Your task to perform on an android device: View the shopping cart on newegg. Image 0: 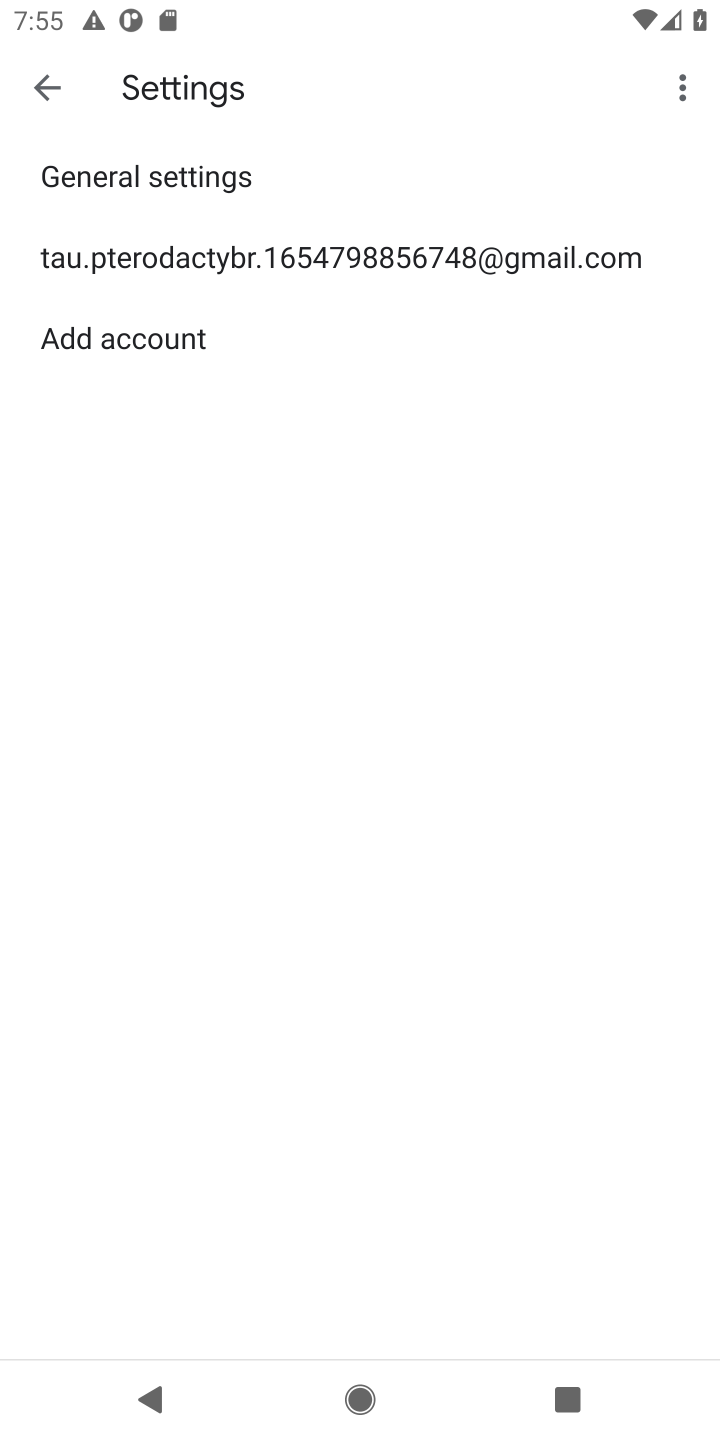
Step 0: press home button
Your task to perform on an android device: View the shopping cart on newegg. Image 1: 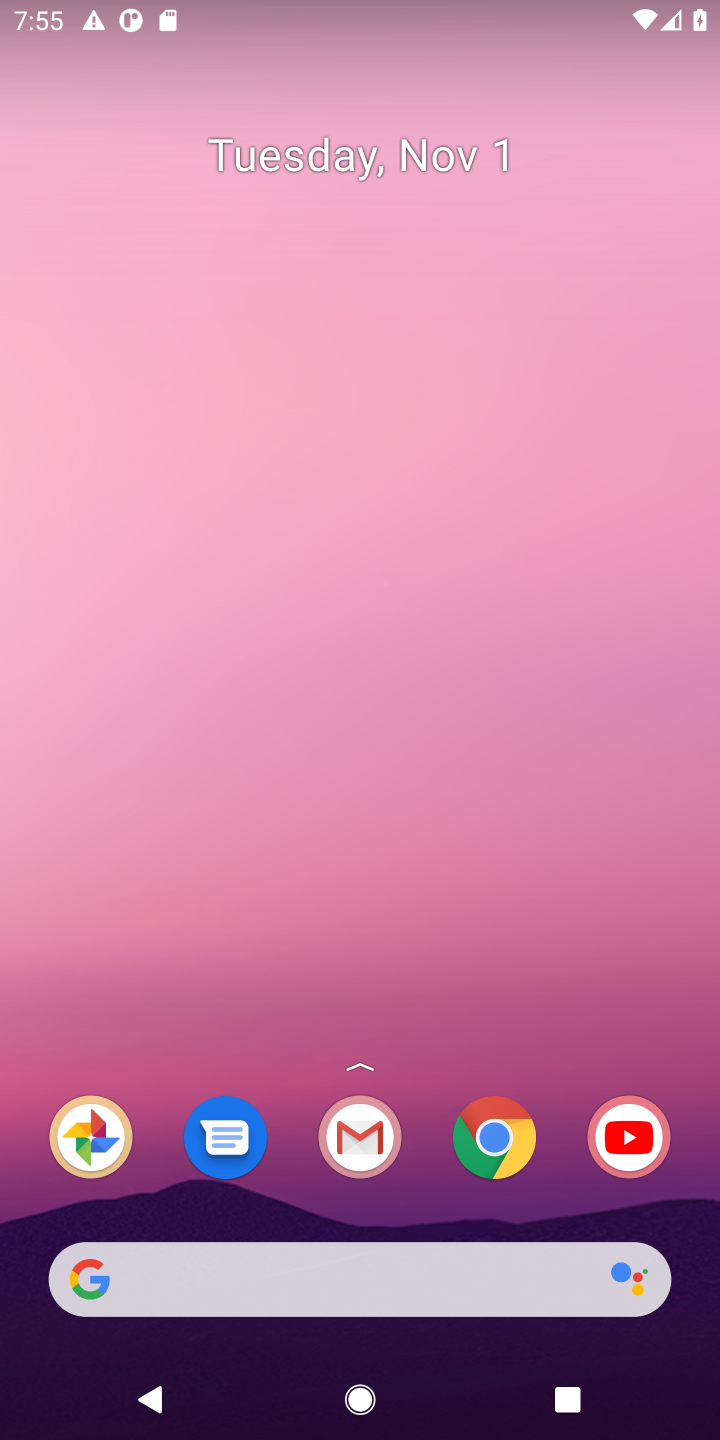
Step 1: click (489, 1157)
Your task to perform on an android device: View the shopping cart on newegg. Image 2: 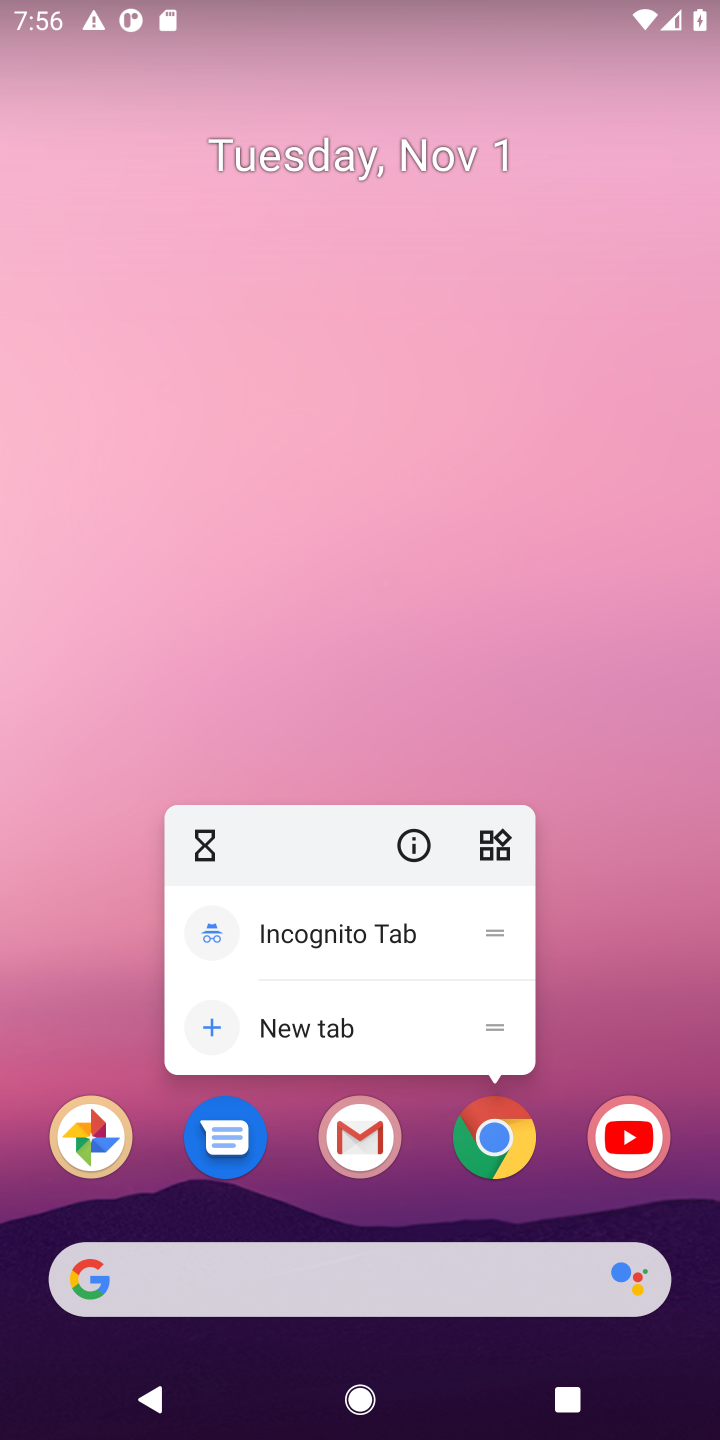
Step 2: click (489, 1157)
Your task to perform on an android device: View the shopping cart on newegg. Image 3: 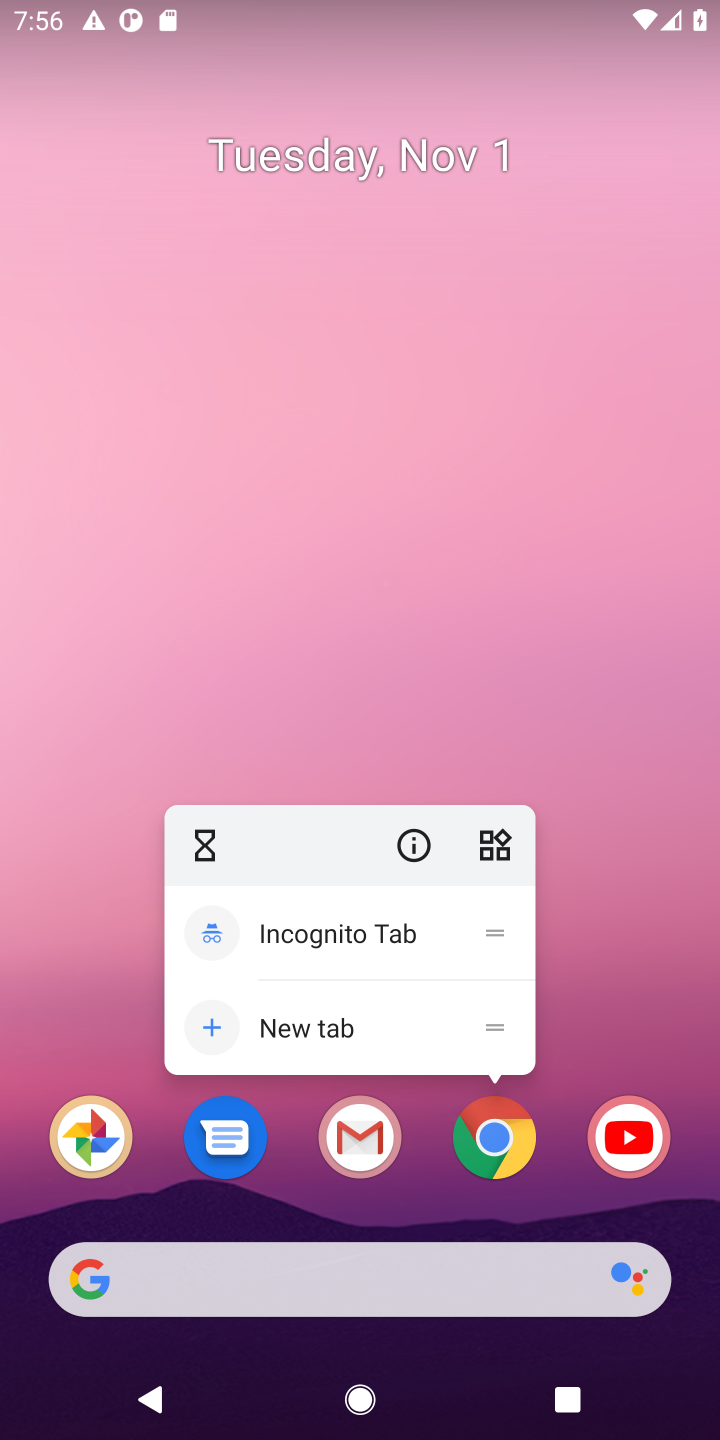
Step 3: click (489, 1157)
Your task to perform on an android device: View the shopping cart on newegg. Image 4: 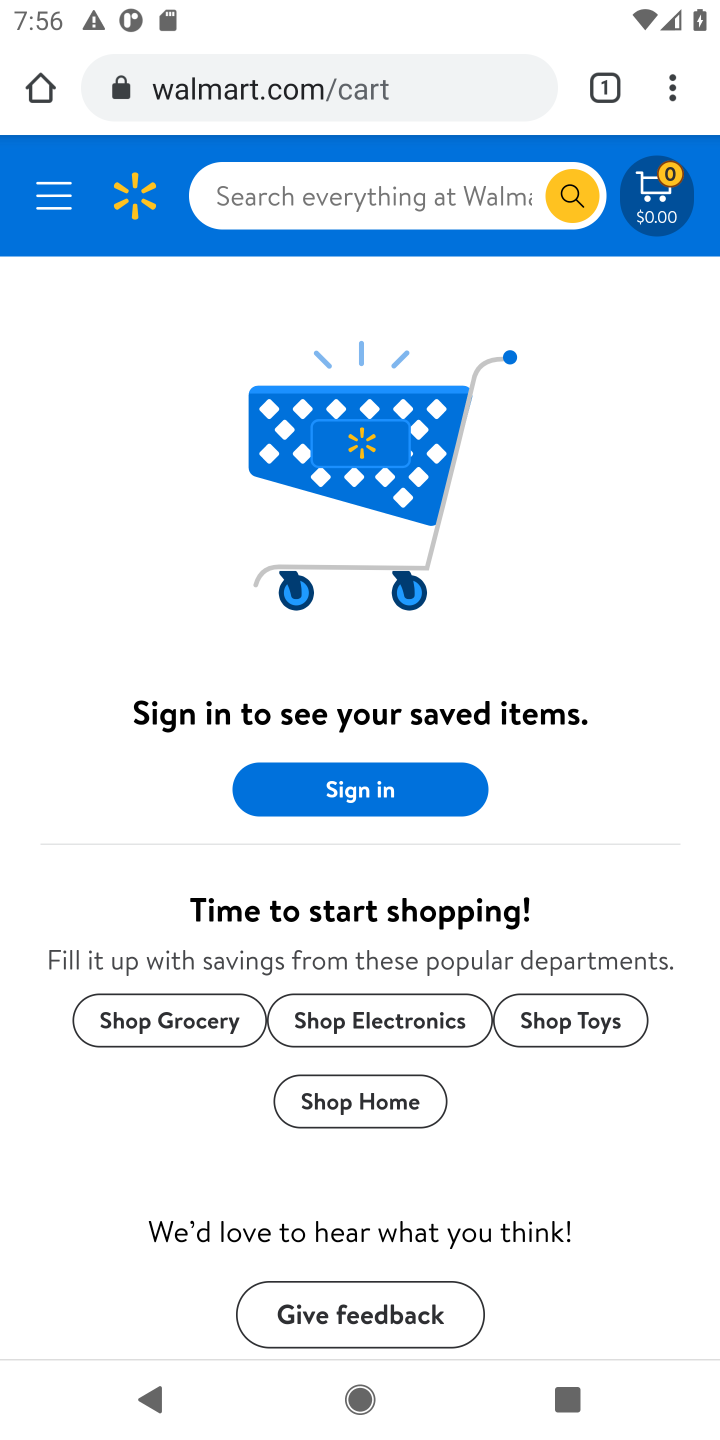
Step 4: click (365, 89)
Your task to perform on an android device: View the shopping cart on newegg. Image 5: 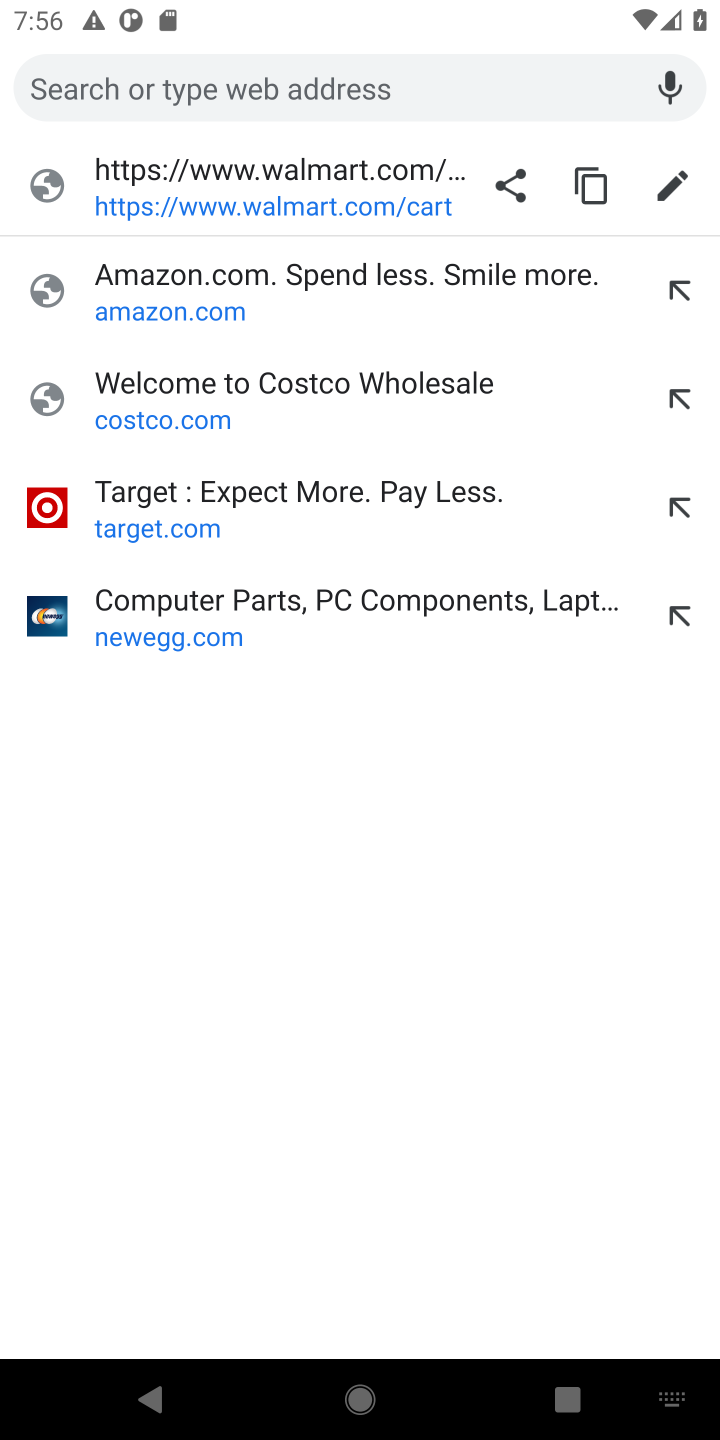
Step 5: type "newegg"
Your task to perform on an android device: View the shopping cart on newegg. Image 6: 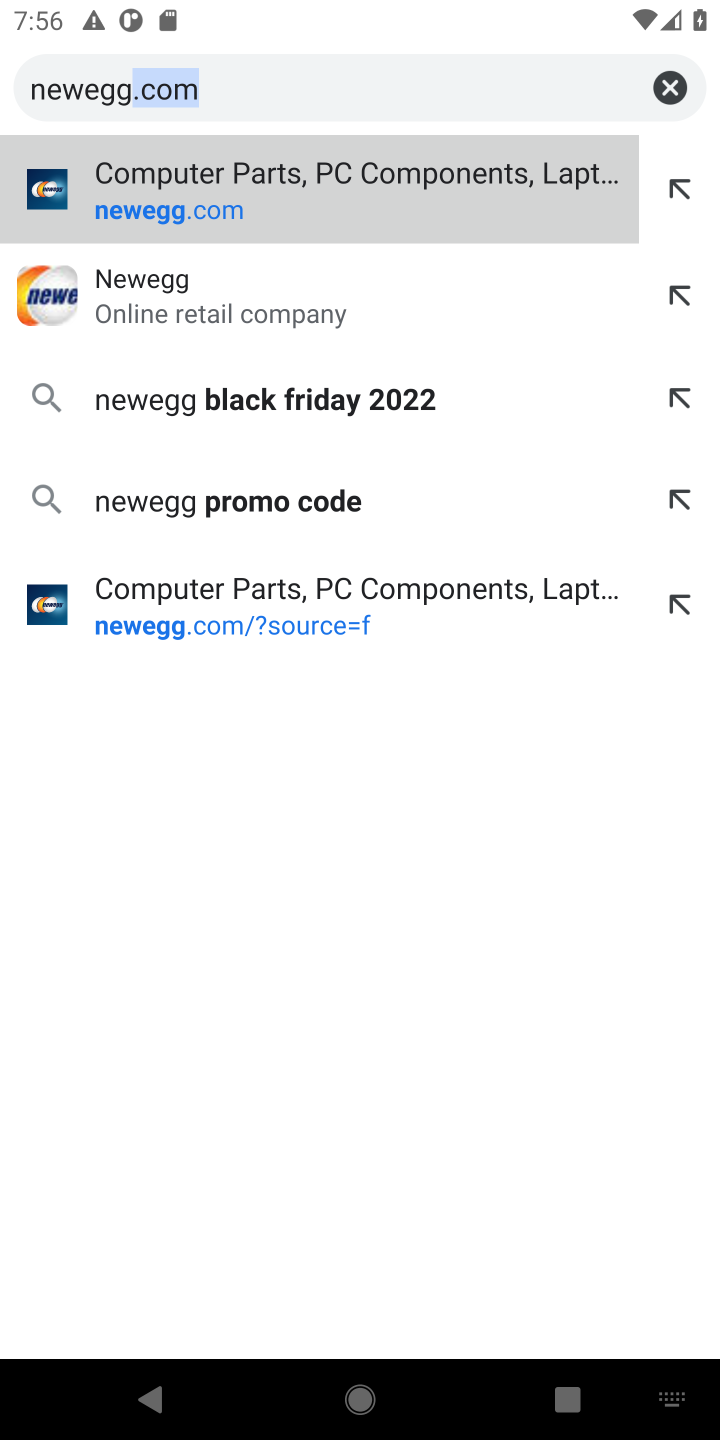
Step 6: click (212, 195)
Your task to perform on an android device: View the shopping cart on newegg. Image 7: 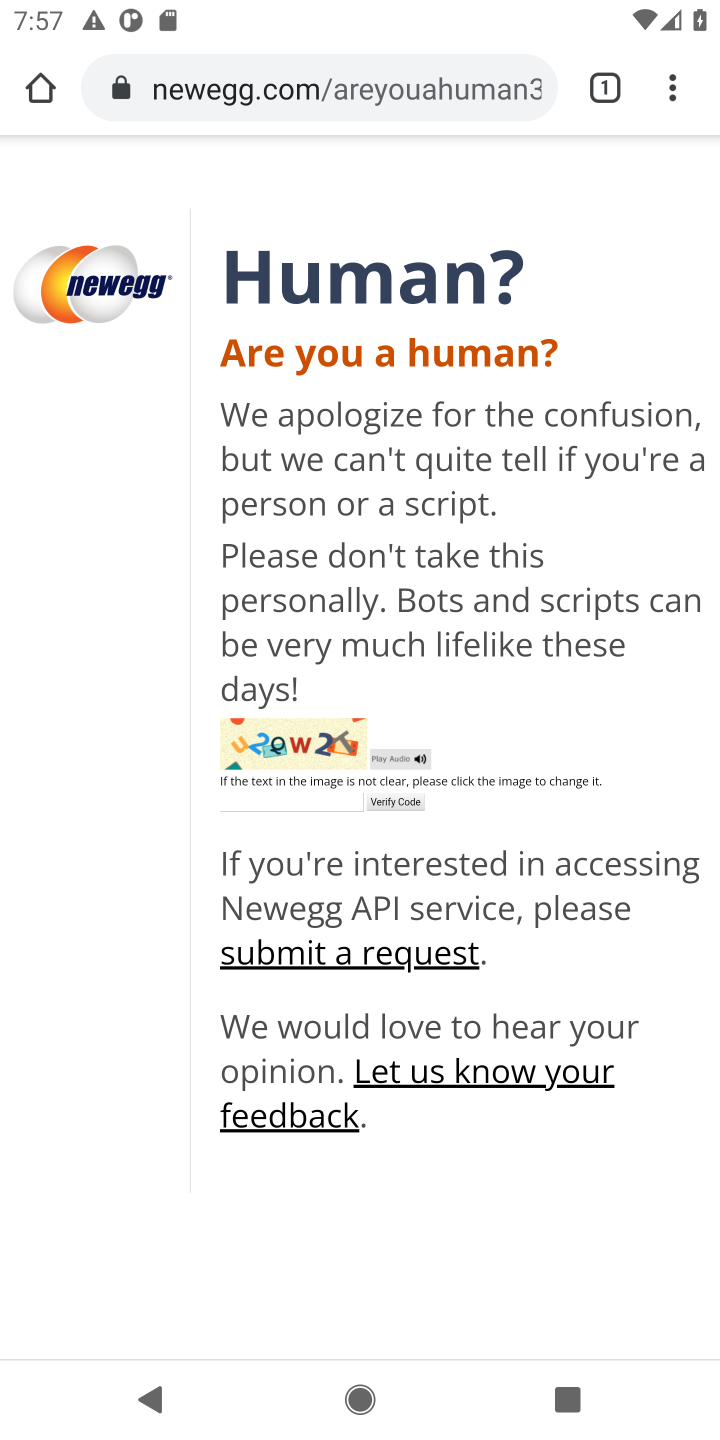
Step 7: click (391, 798)
Your task to perform on an android device: View the shopping cart on newegg. Image 8: 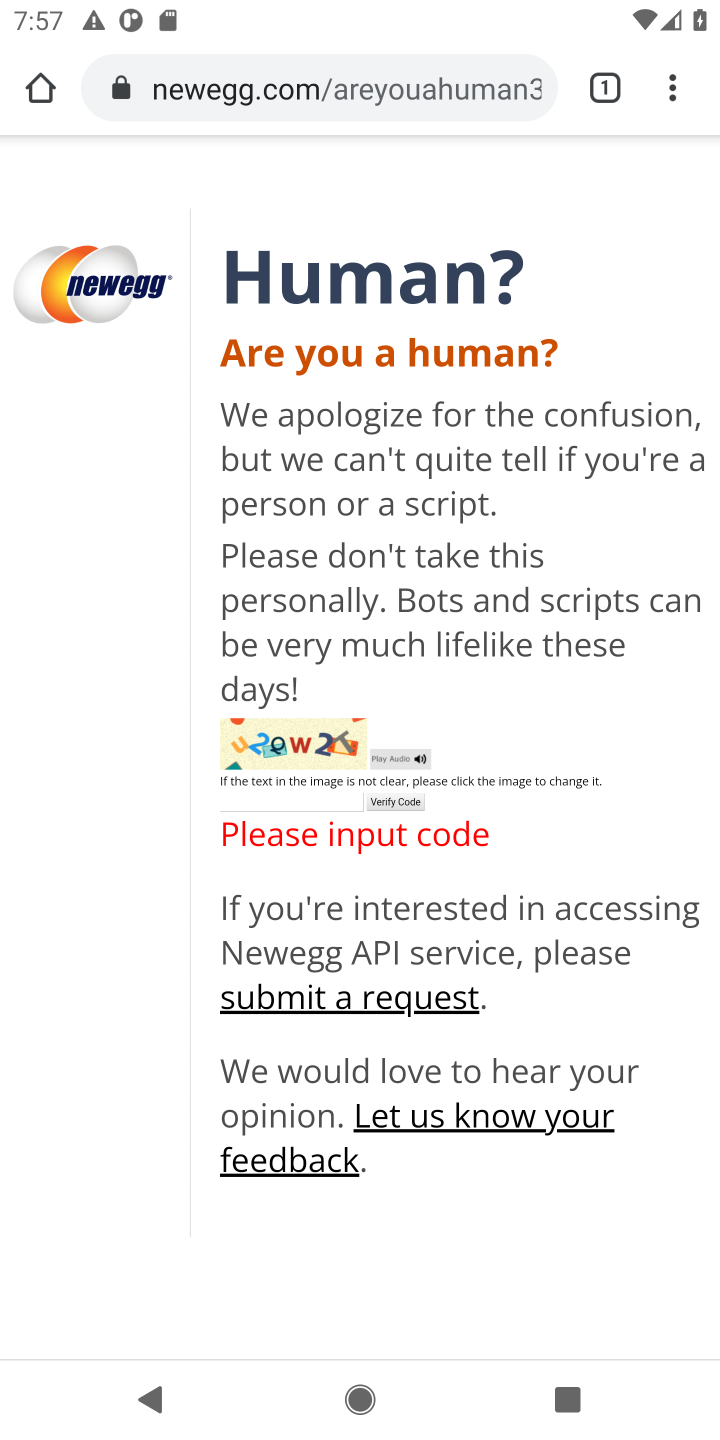
Step 8: task complete